Your task to perform on an android device: Open sound settings Image 0: 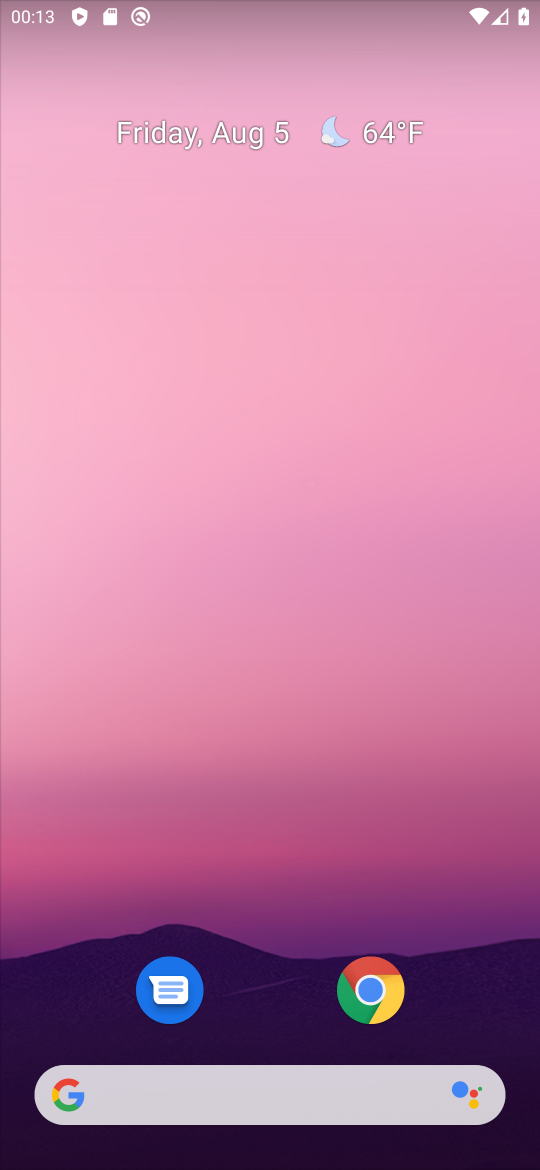
Step 0: drag from (468, 1020) to (351, 202)
Your task to perform on an android device: Open sound settings Image 1: 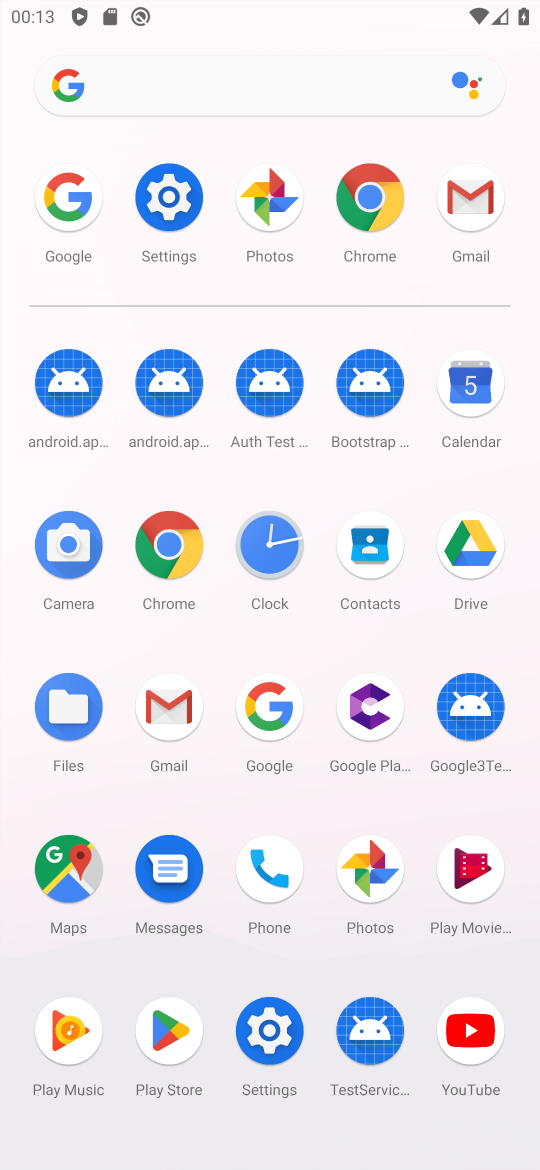
Step 1: click (164, 223)
Your task to perform on an android device: Open sound settings Image 2: 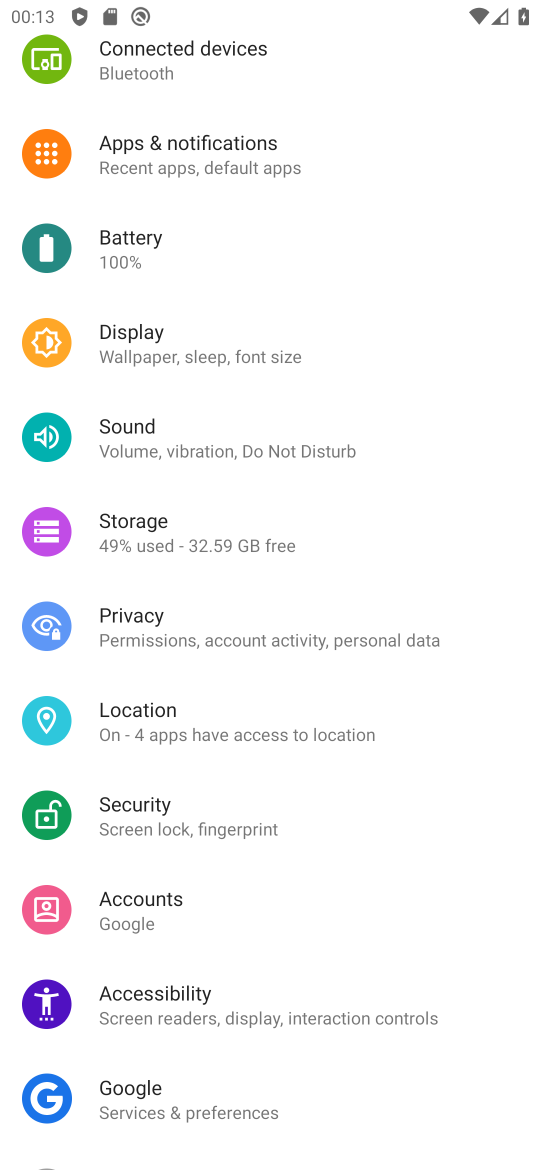
Step 2: click (162, 445)
Your task to perform on an android device: Open sound settings Image 3: 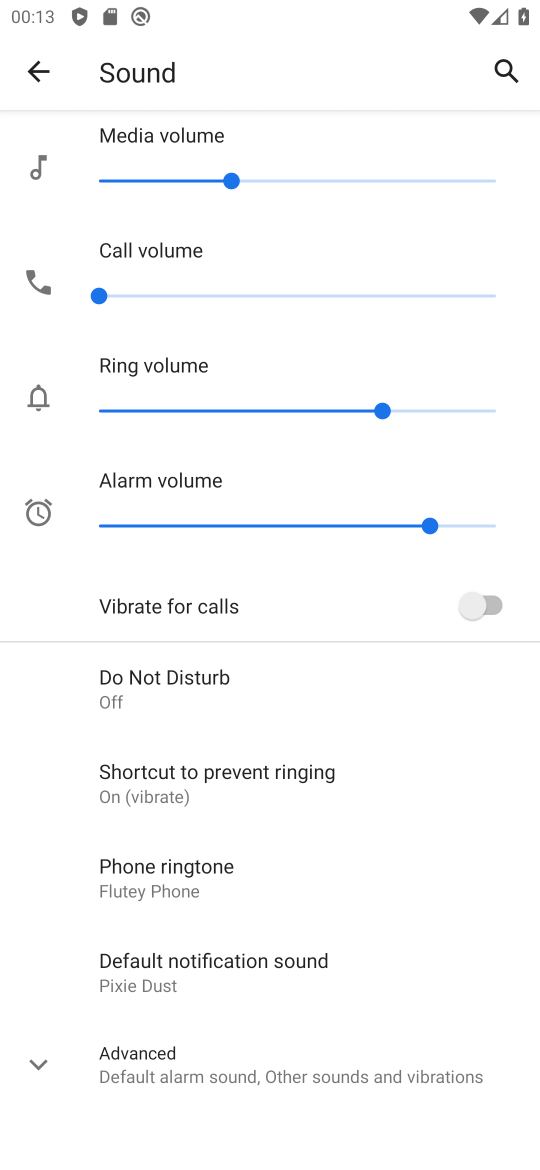
Step 3: task complete